Your task to perform on an android device: Open the map Image 0: 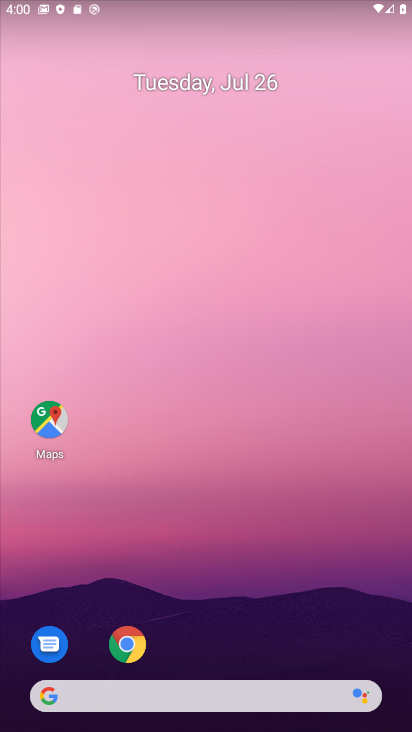
Step 0: click (52, 419)
Your task to perform on an android device: Open the map Image 1: 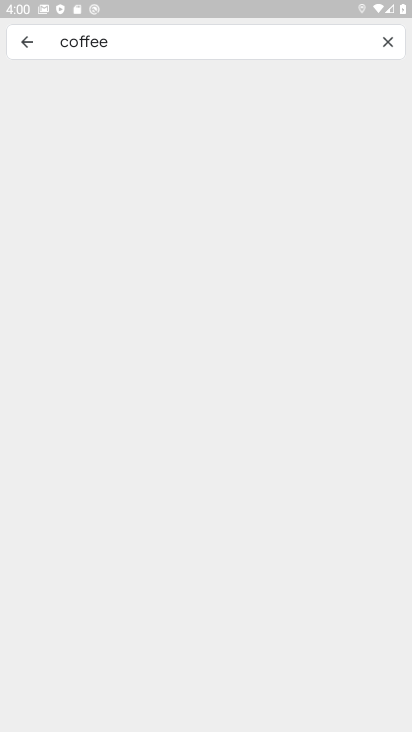
Step 1: click (386, 40)
Your task to perform on an android device: Open the map Image 2: 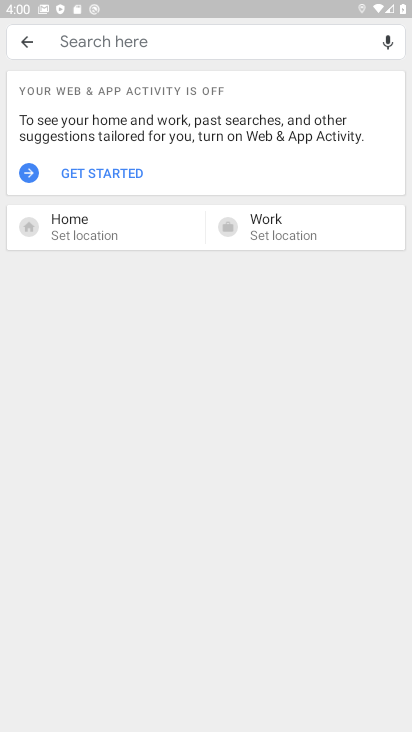
Step 2: task complete